Your task to perform on an android device: Go to accessibility settings Image 0: 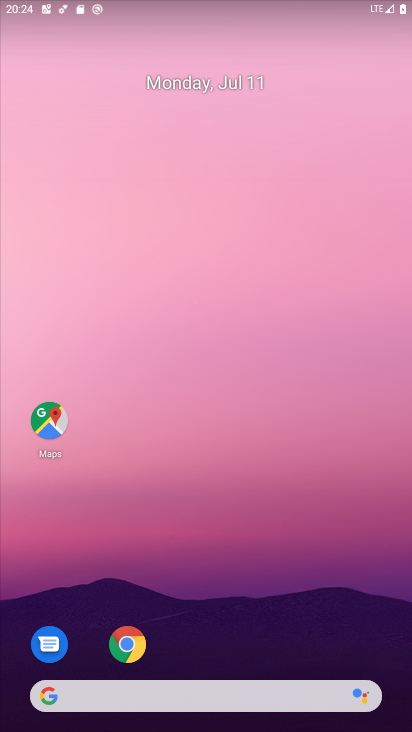
Step 0: drag from (151, 650) to (181, 433)
Your task to perform on an android device: Go to accessibility settings Image 1: 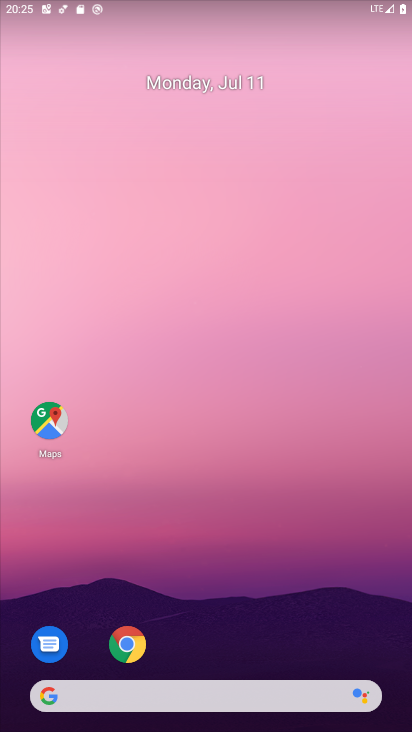
Step 1: drag from (225, 652) to (224, 368)
Your task to perform on an android device: Go to accessibility settings Image 2: 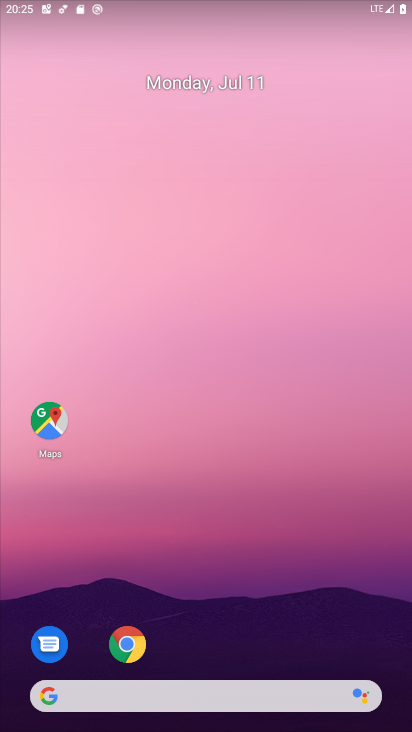
Step 2: drag from (230, 678) to (249, 202)
Your task to perform on an android device: Go to accessibility settings Image 3: 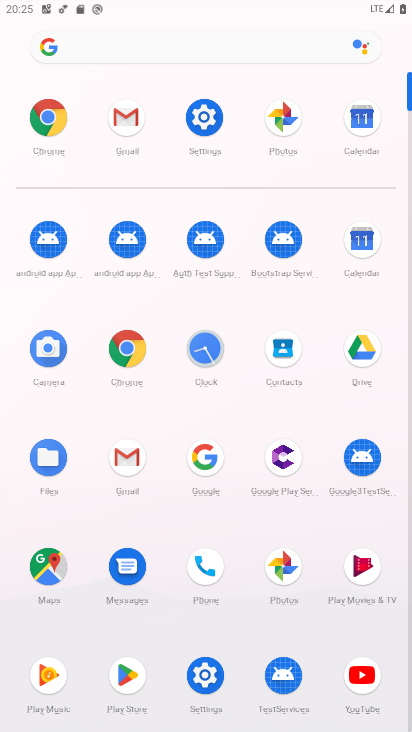
Step 3: click (203, 93)
Your task to perform on an android device: Go to accessibility settings Image 4: 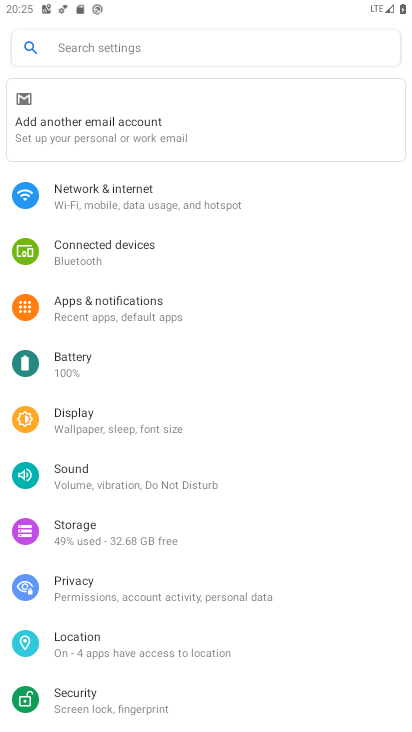
Step 4: drag from (120, 653) to (133, 186)
Your task to perform on an android device: Go to accessibility settings Image 5: 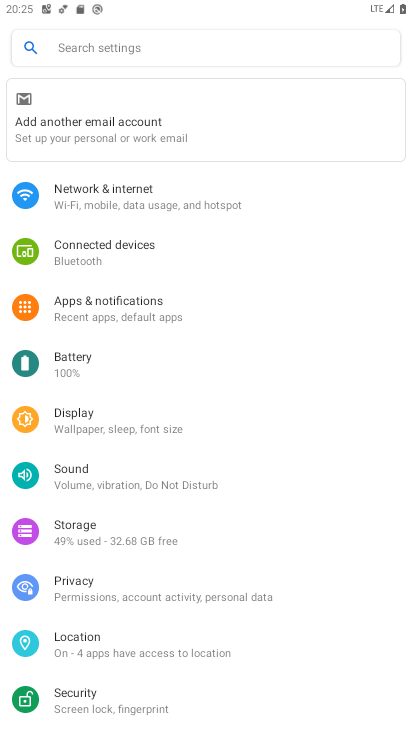
Step 5: drag from (156, 532) to (146, 61)
Your task to perform on an android device: Go to accessibility settings Image 6: 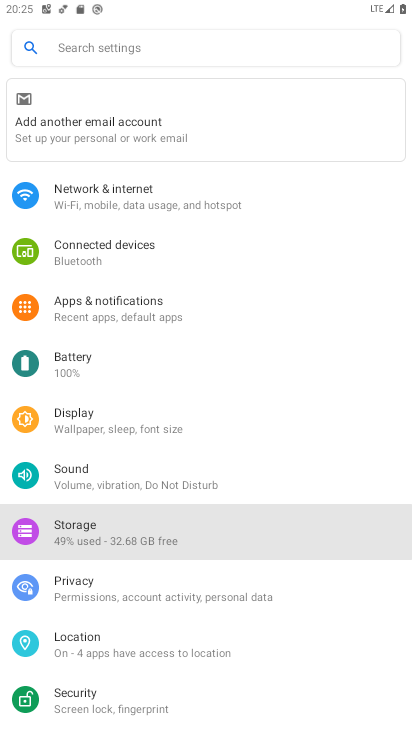
Step 6: drag from (126, 593) to (171, 361)
Your task to perform on an android device: Go to accessibility settings Image 7: 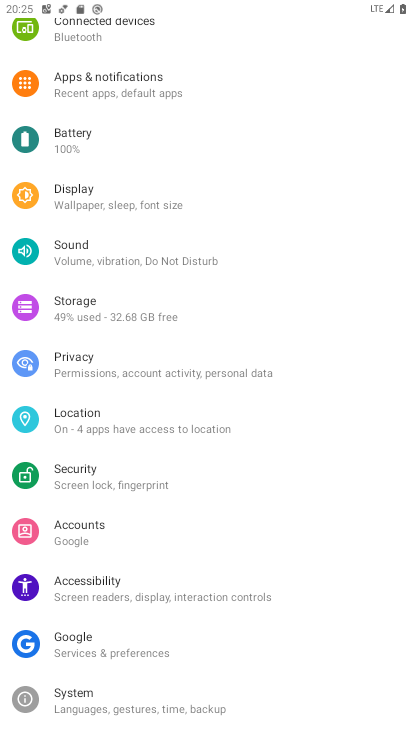
Step 7: drag from (144, 564) to (169, 220)
Your task to perform on an android device: Go to accessibility settings Image 8: 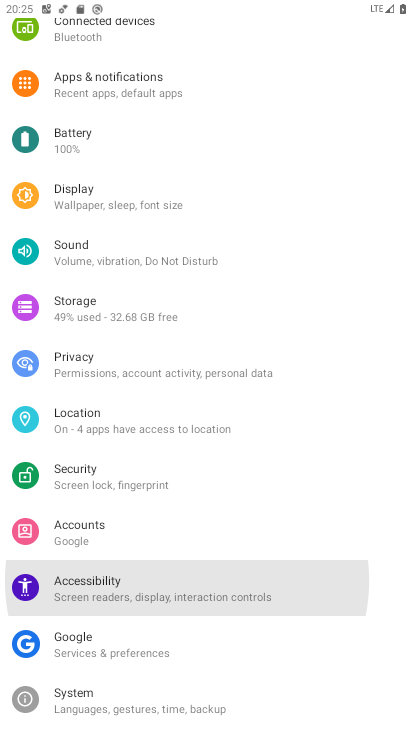
Step 8: drag from (160, 628) to (171, 389)
Your task to perform on an android device: Go to accessibility settings Image 9: 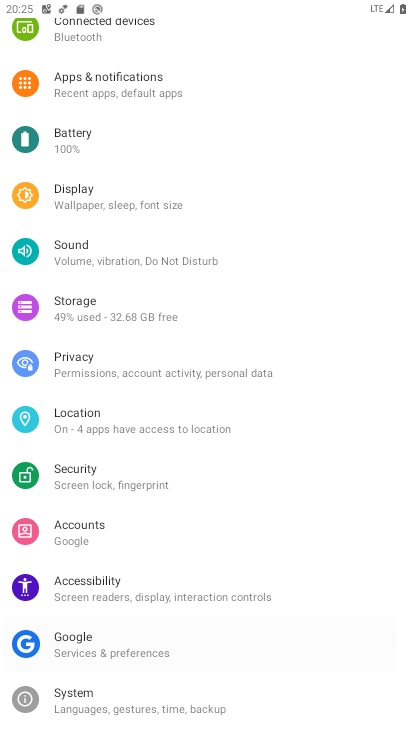
Step 9: click (111, 598)
Your task to perform on an android device: Go to accessibility settings Image 10: 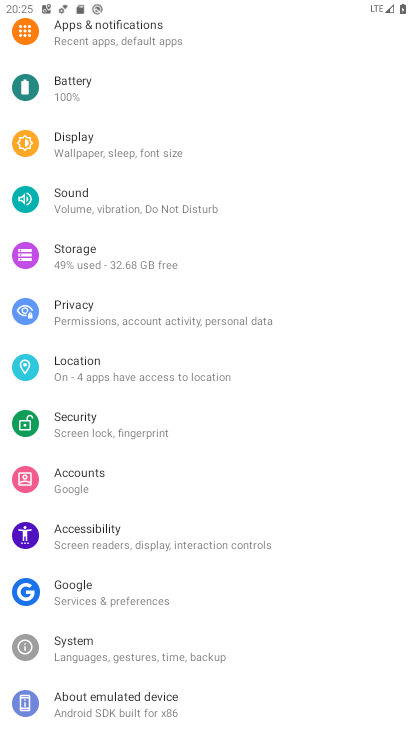
Step 10: click (135, 590)
Your task to perform on an android device: Go to accessibility settings Image 11: 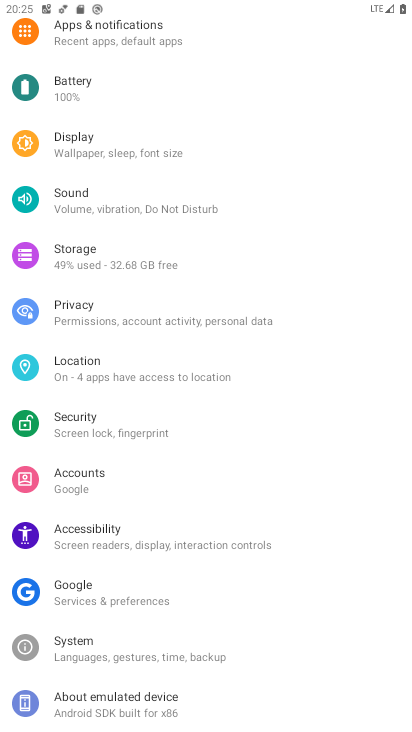
Step 11: click (135, 590)
Your task to perform on an android device: Go to accessibility settings Image 12: 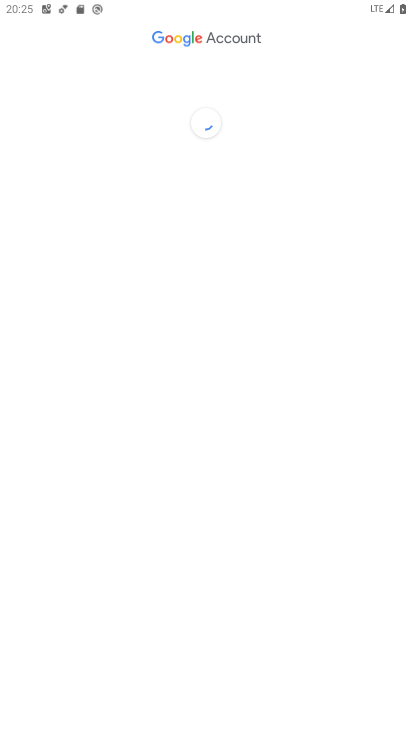
Step 12: click (98, 534)
Your task to perform on an android device: Go to accessibility settings Image 13: 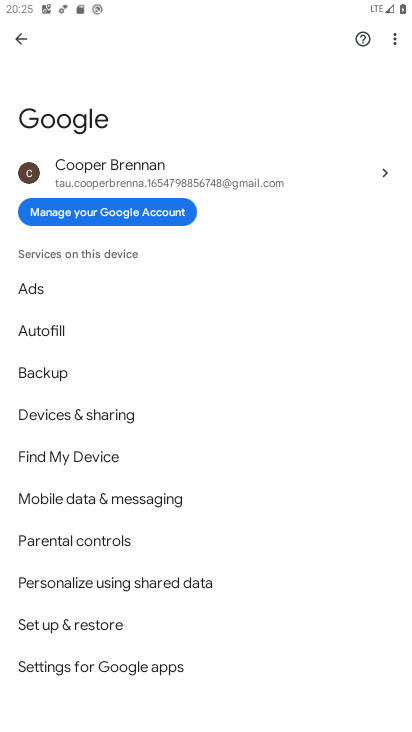
Step 13: press back button
Your task to perform on an android device: Go to accessibility settings Image 14: 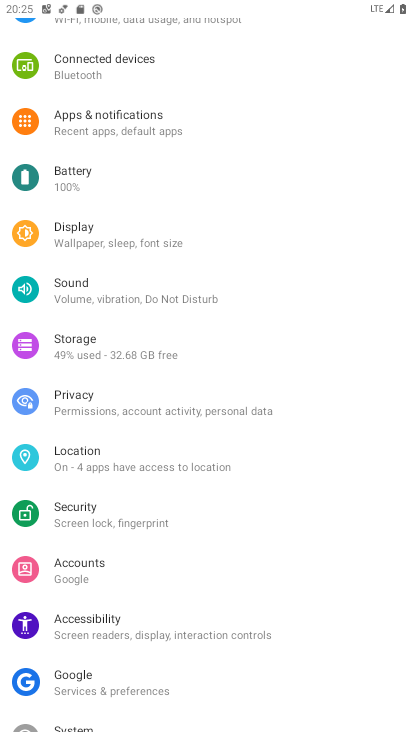
Step 14: click (129, 632)
Your task to perform on an android device: Go to accessibility settings Image 15: 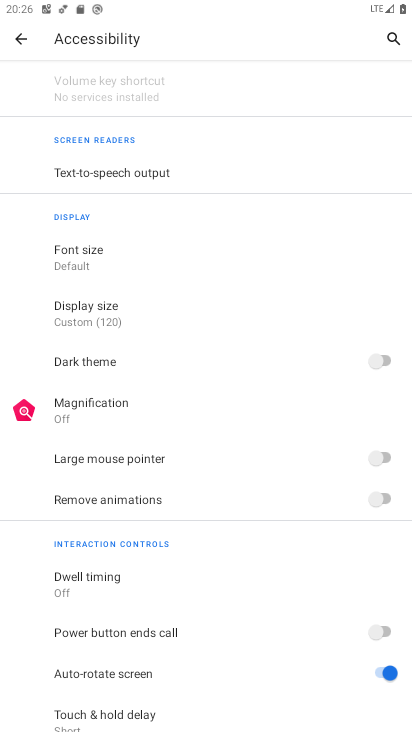
Step 15: task complete